Your task to perform on an android device: create a new album in the google photos Image 0: 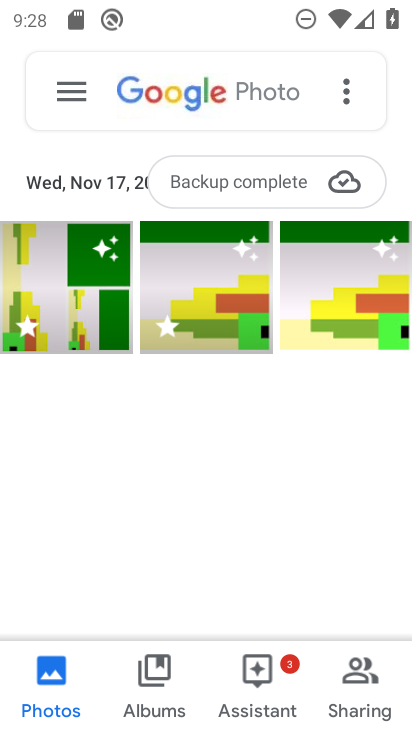
Step 0: press home button
Your task to perform on an android device: create a new album in the google photos Image 1: 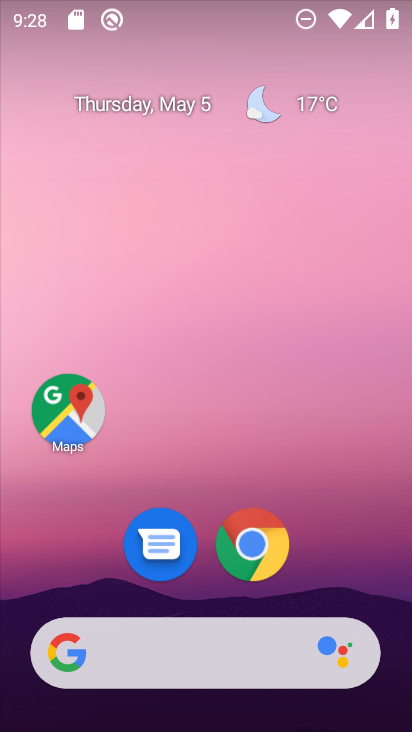
Step 1: drag from (379, 611) to (300, 165)
Your task to perform on an android device: create a new album in the google photos Image 2: 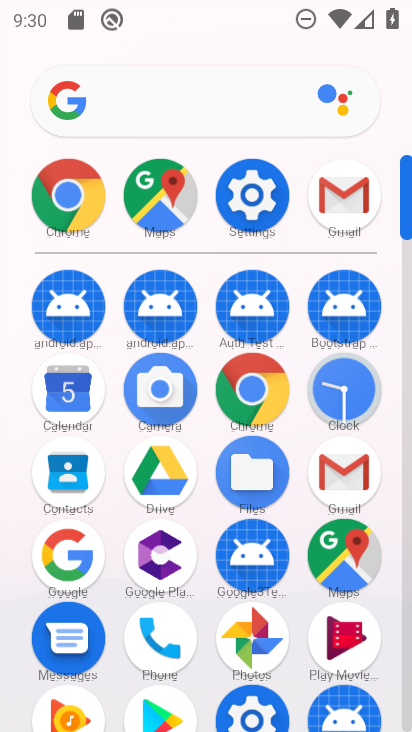
Step 2: click (257, 641)
Your task to perform on an android device: create a new album in the google photos Image 3: 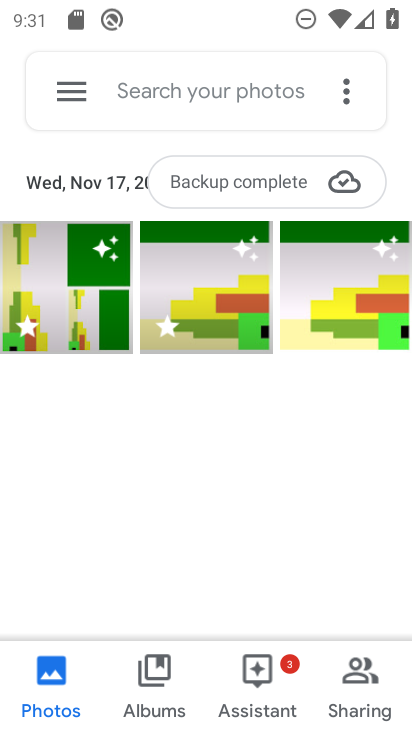
Step 3: click (73, 267)
Your task to perform on an android device: create a new album in the google photos Image 4: 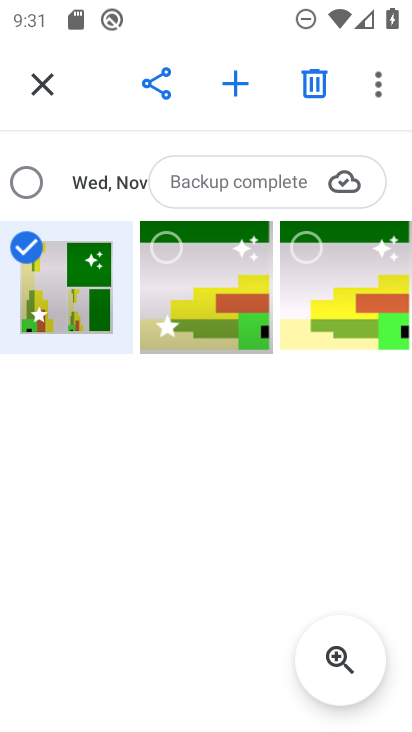
Step 4: click (245, 83)
Your task to perform on an android device: create a new album in the google photos Image 5: 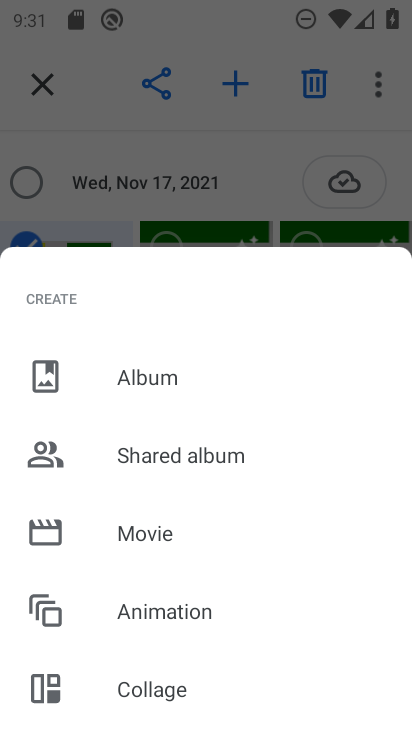
Step 5: click (180, 384)
Your task to perform on an android device: create a new album in the google photos Image 6: 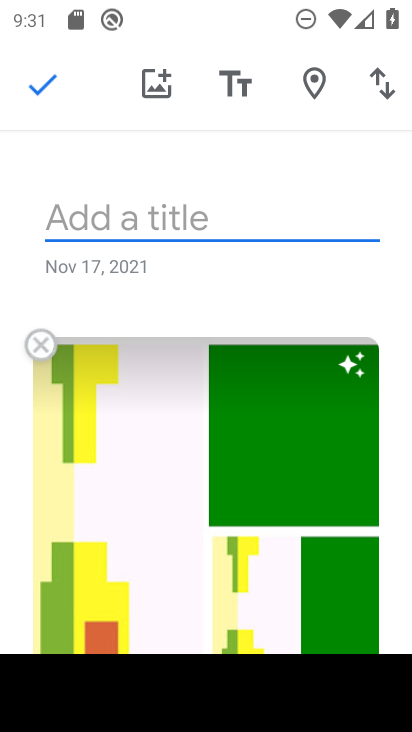
Step 6: type "life"
Your task to perform on an android device: create a new album in the google photos Image 7: 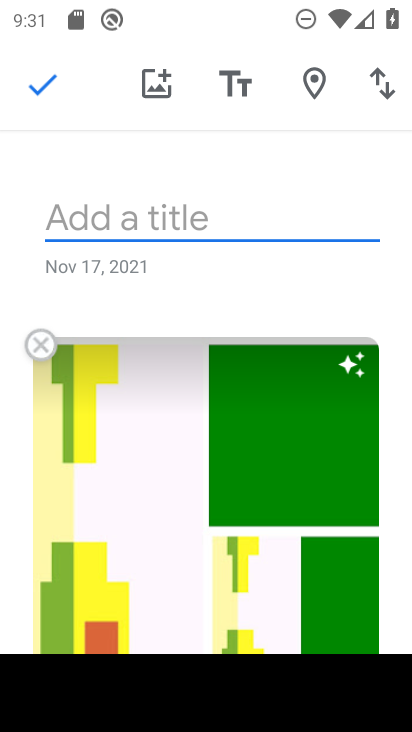
Step 7: click (20, 95)
Your task to perform on an android device: create a new album in the google photos Image 8: 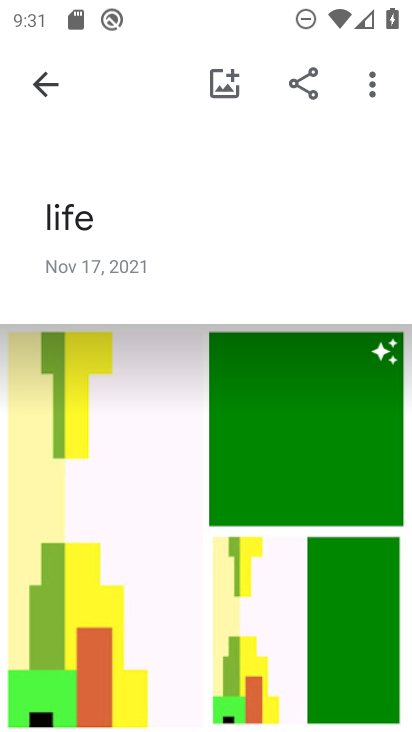
Step 8: task complete